Your task to perform on an android device: turn notification dots off Image 0: 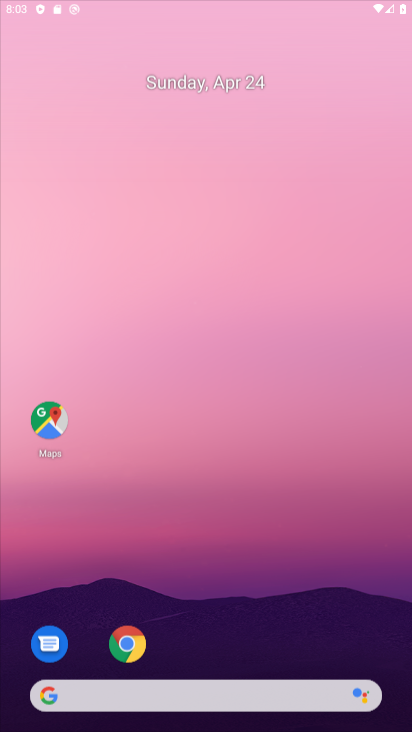
Step 0: click (180, 28)
Your task to perform on an android device: turn notification dots off Image 1: 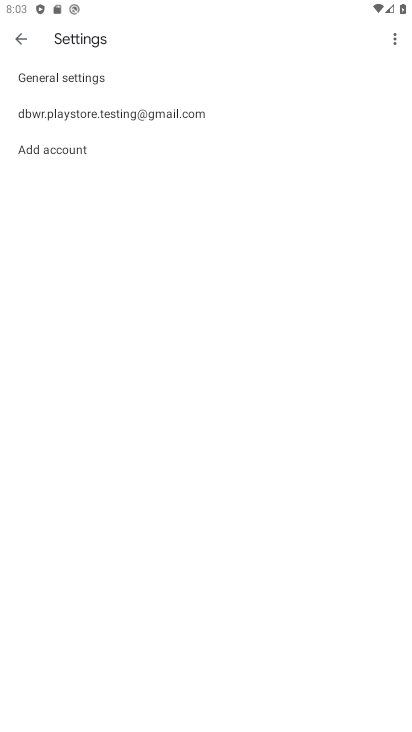
Step 1: press home button
Your task to perform on an android device: turn notification dots off Image 2: 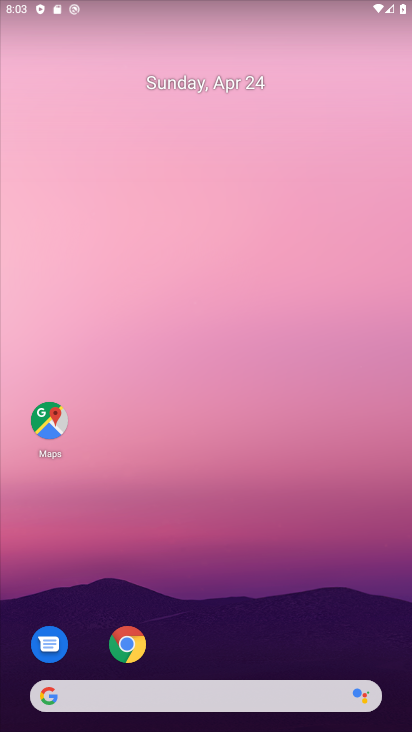
Step 2: drag from (192, 649) to (252, 86)
Your task to perform on an android device: turn notification dots off Image 3: 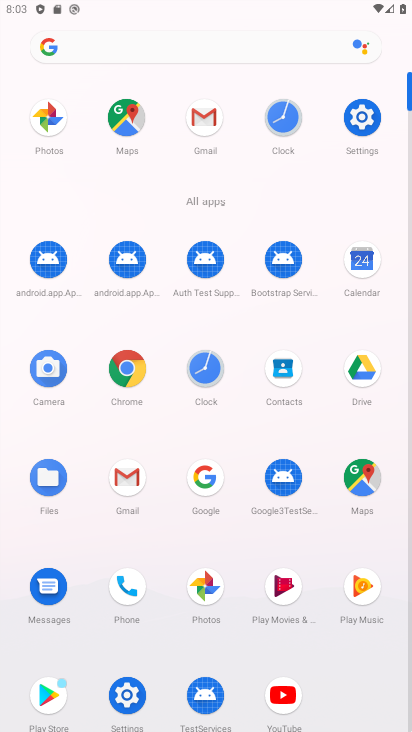
Step 3: click (362, 122)
Your task to perform on an android device: turn notification dots off Image 4: 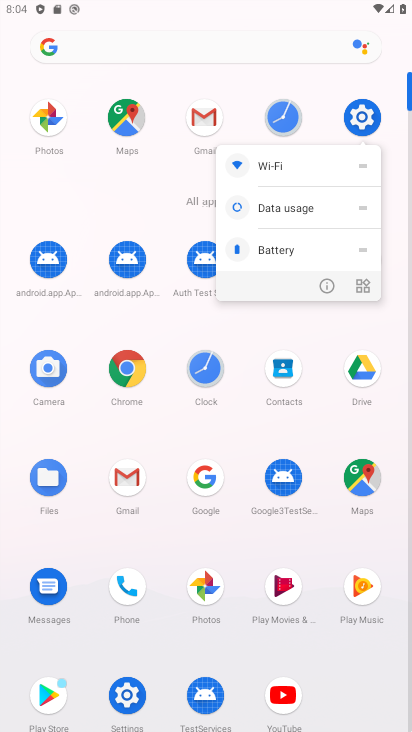
Step 4: click (325, 285)
Your task to perform on an android device: turn notification dots off Image 5: 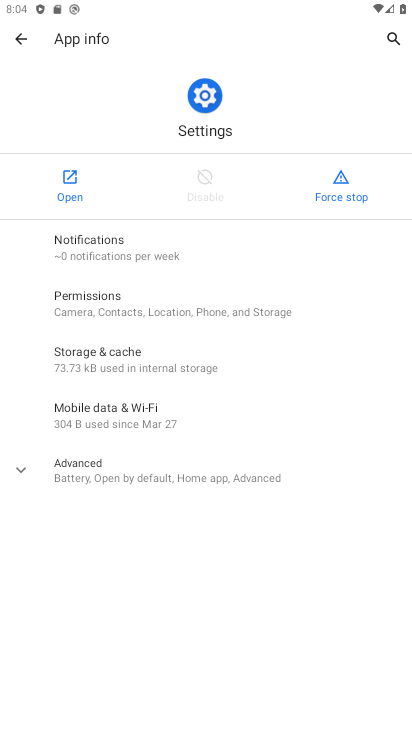
Step 5: click (66, 169)
Your task to perform on an android device: turn notification dots off Image 6: 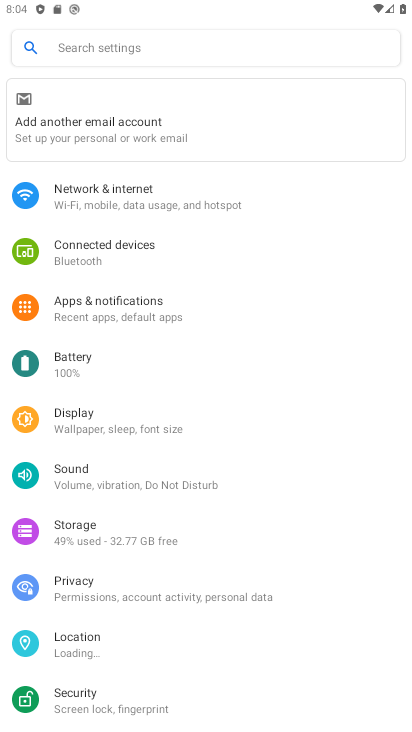
Step 6: click (98, 329)
Your task to perform on an android device: turn notification dots off Image 7: 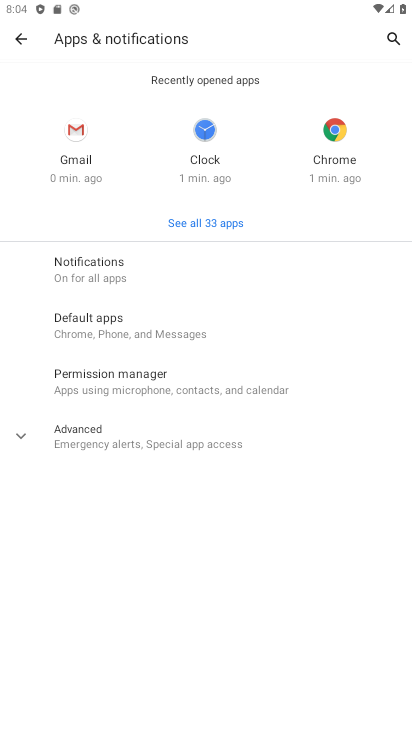
Step 7: click (157, 268)
Your task to perform on an android device: turn notification dots off Image 8: 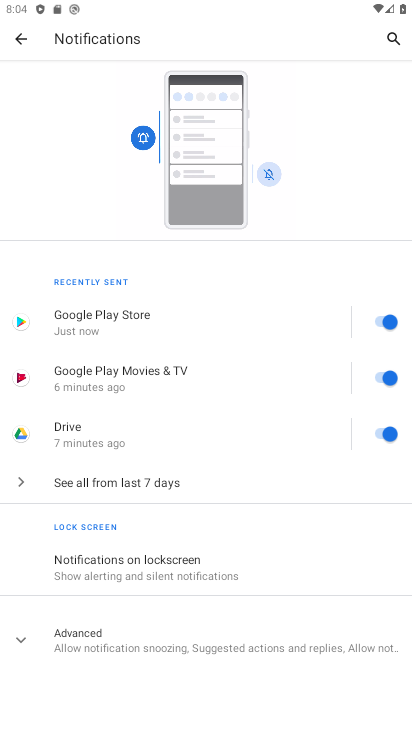
Step 8: click (142, 640)
Your task to perform on an android device: turn notification dots off Image 9: 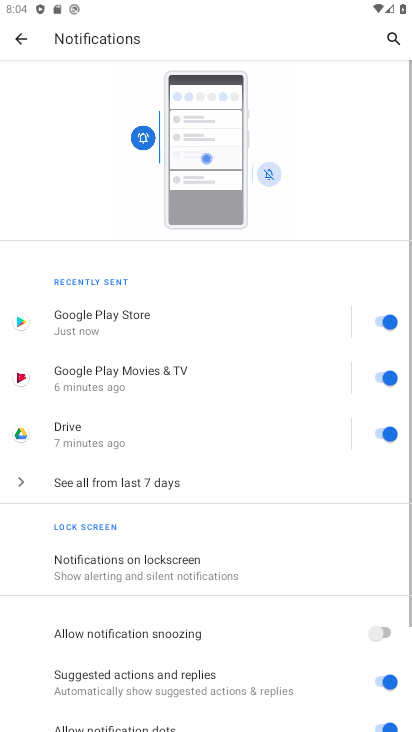
Step 9: drag from (170, 622) to (303, 156)
Your task to perform on an android device: turn notification dots off Image 10: 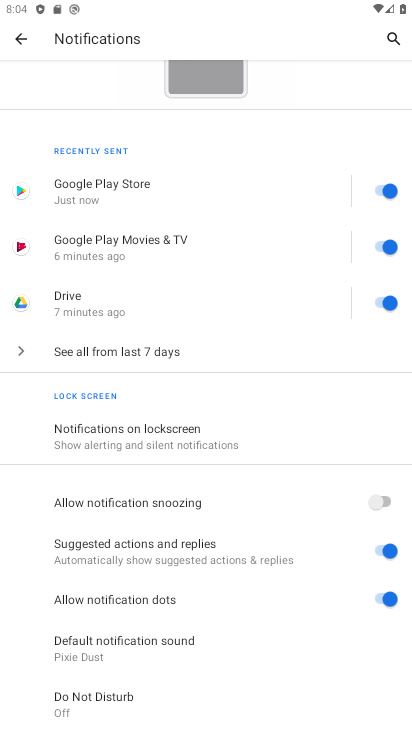
Step 10: click (370, 598)
Your task to perform on an android device: turn notification dots off Image 11: 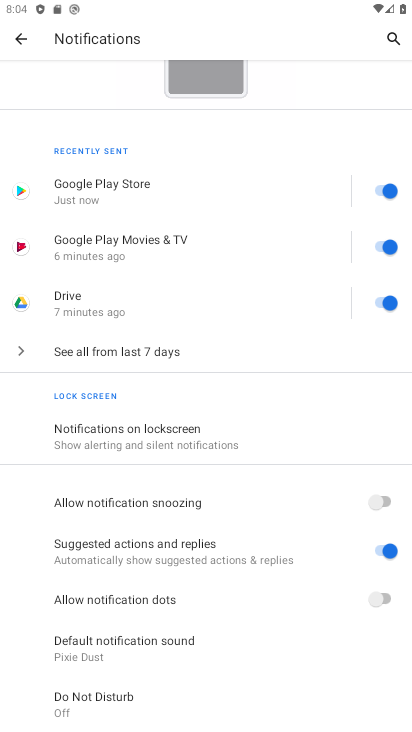
Step 11: task complete